Your task to perform on an android device: Go to display settings Image 0: 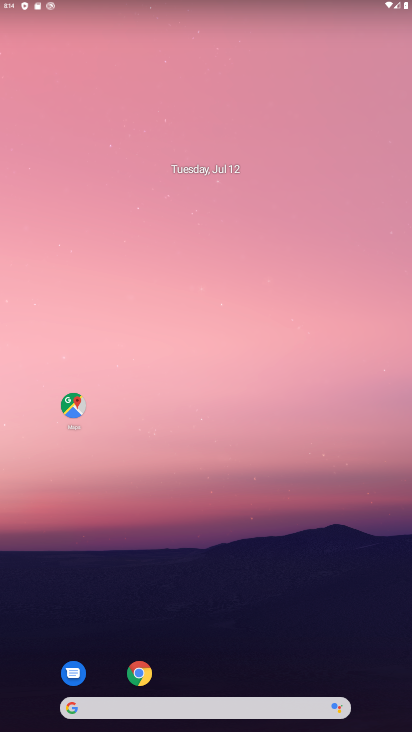
Step 0: drag from (206, 610) to (216, 189)
Your task to perform on an android device: Go to display settings Image 1: 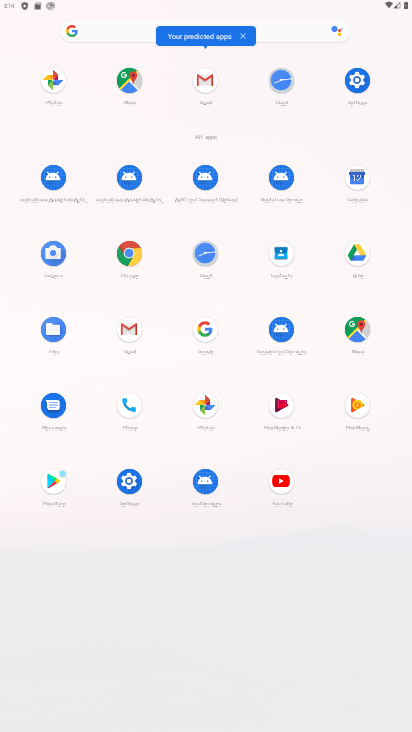
Step 1: click (121, 481)
Your task to perform on an android device: Go to display settings Image 2: 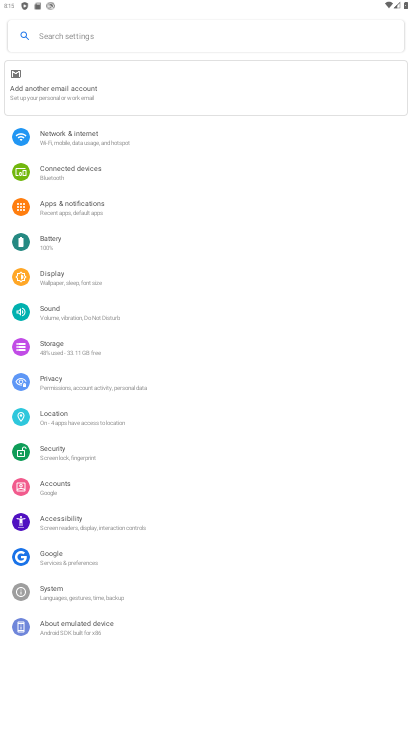
Step 2: click (49, 276)
Your task to perform on an android device: Go to display settings Image 3: 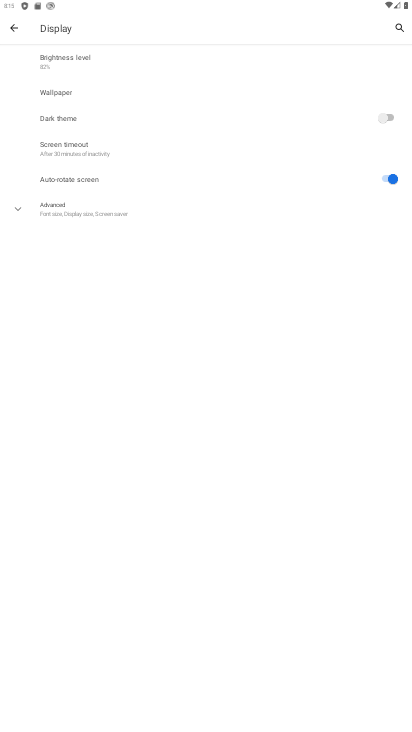
Step 3: task complete